Your task to perform on an android device: Go to display settings Image 0: 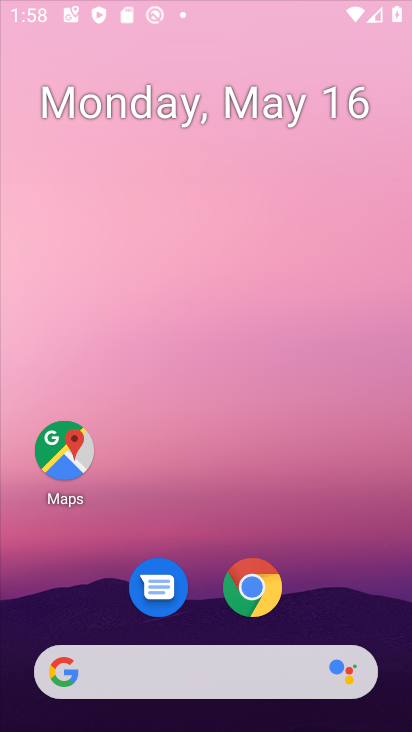
Step 0: click (181, 69)
Your task to perform on an android device: Go to display settings Image 1: 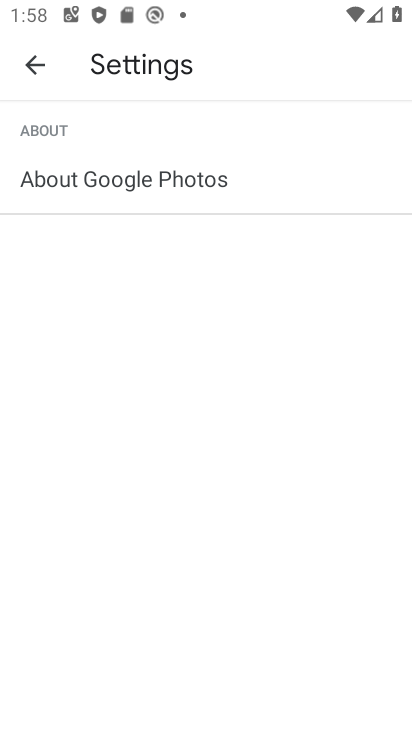
Step 1: drag from (239, 434) to (134, 21)
Your task to perform on an android device: Go to display settings Image 2: 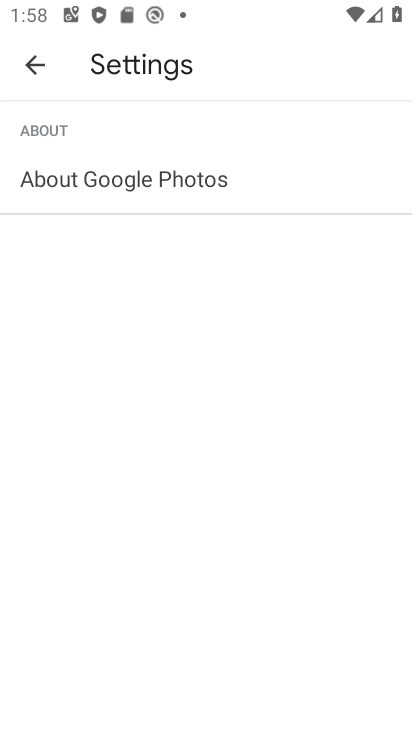
Step 2: click (38, 69)
Your task to perform on an android device: Go to display settings Image 3: 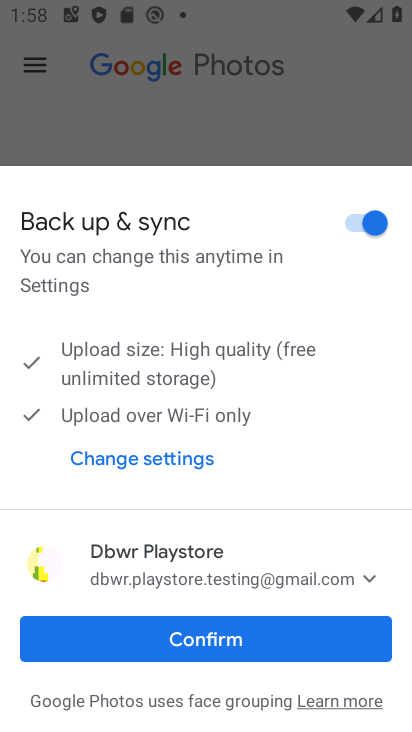
Step 3: click (205, 638)
Your task to perform on an android device: Go to display settings Image 4: 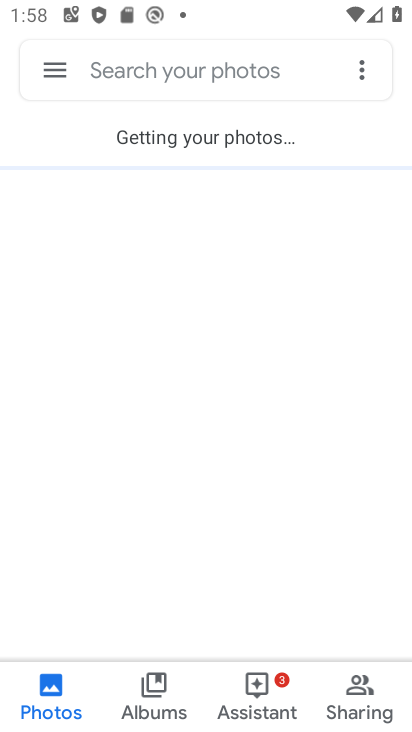
Step 4: press back button
Your task to perform on an android device: Go to display settings Image 5: 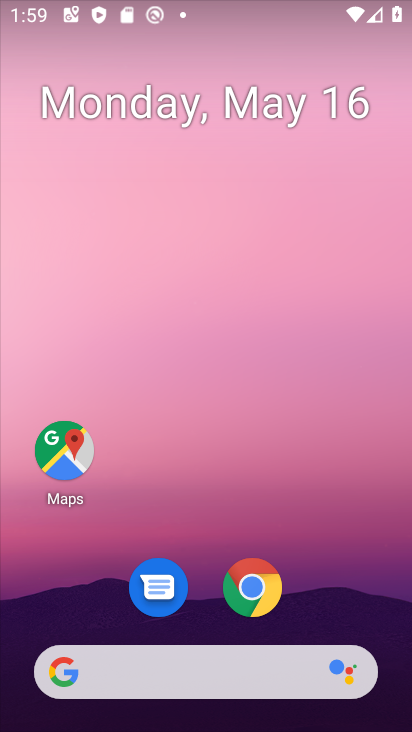
Step 5: drag from (327, 597) to (210, 143)
Your task to perform on an android device: Go to display settings Image 6: 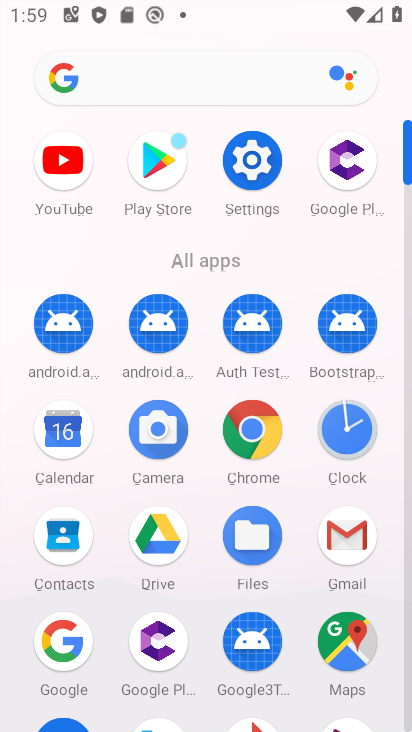
Step 6: click (257, 171)
Your task to perform on an android device: Go to display settings Image 7: 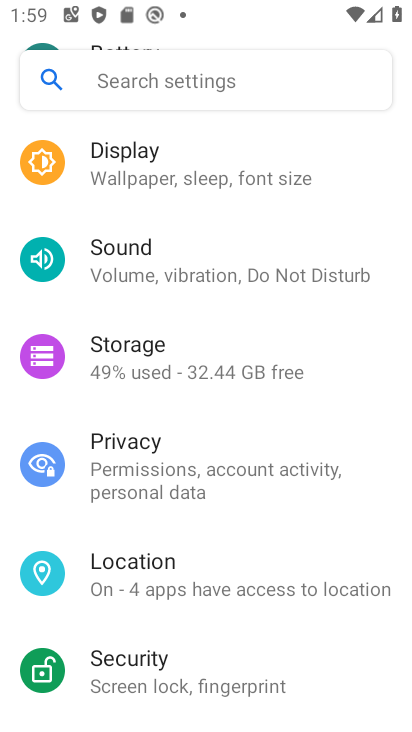
Step 7: click (133, 171)
Your task to perform on an android device: Go to display settings Image 8: 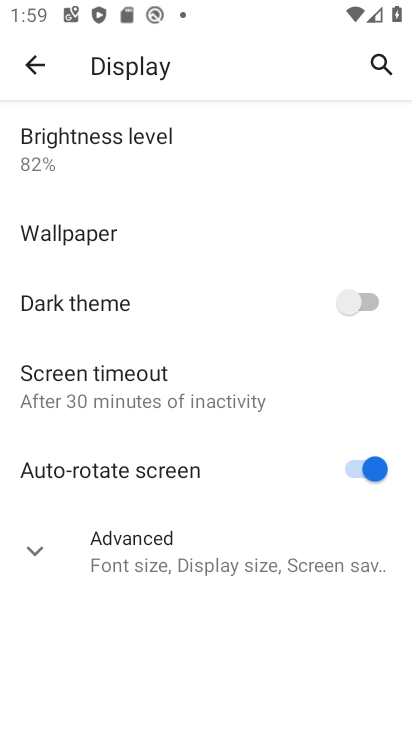
Step 8: task complete